Your task to perform on an android device: set the stopwatch Image 0: 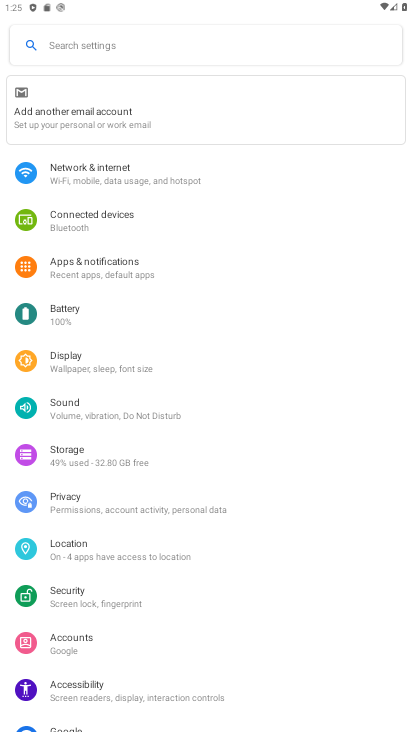
Step 0: press home button
Your task to perform on an android device: set the stopwatch Image 1: 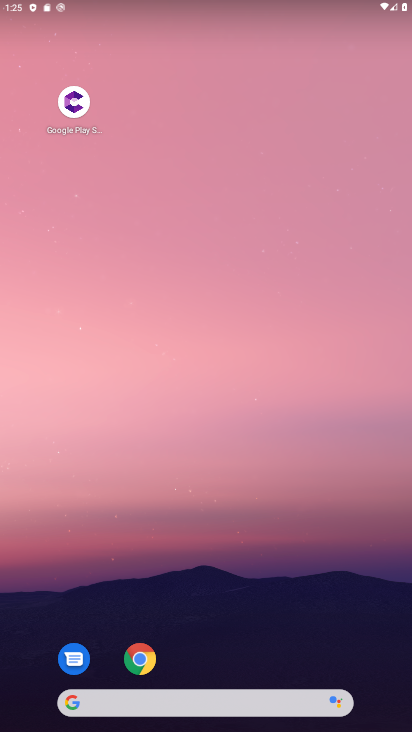
Step 1: drag from (216, 647) to (148, 7)
Your task to perform on an android device: set the stopwatch Image 2: 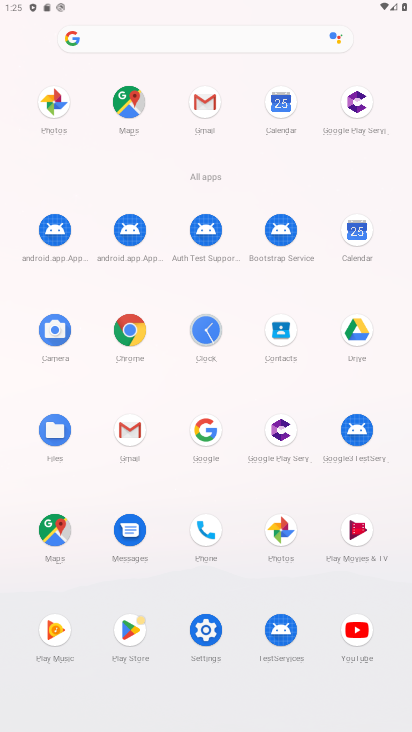
Step 2: click (205, 350)
Your task to perform on an android device: set the stopwatch Image 3: 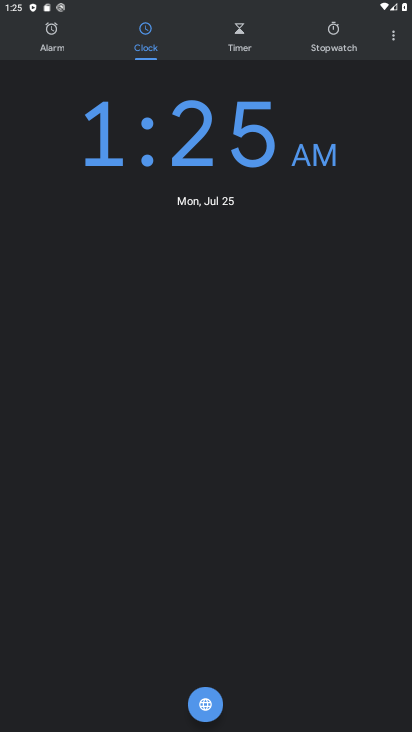
Step 3: click (325, 42)
Your task to perform on an android device: set the stopwatch Image 4: 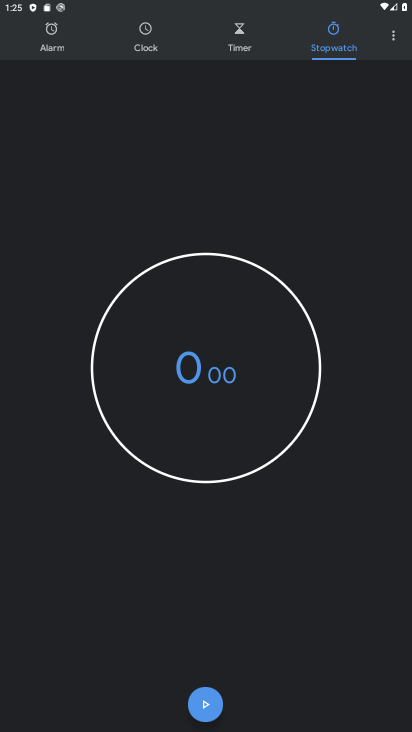
Step 4: click (202, 695)
Your task to perform on an android device: set the stopwatch Image 5: 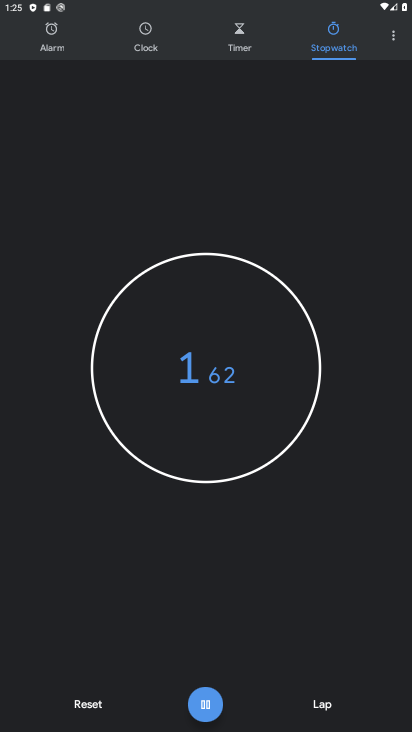
Step 5: click (202, 695)
Your task to perform on an android device: set the stopwatch Image 6: 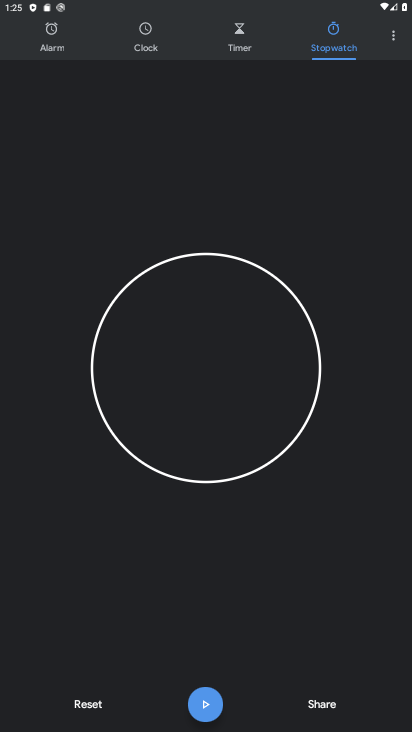
Step 6: task complete